Your task to perform on an android device: Open internet settings Image 0: 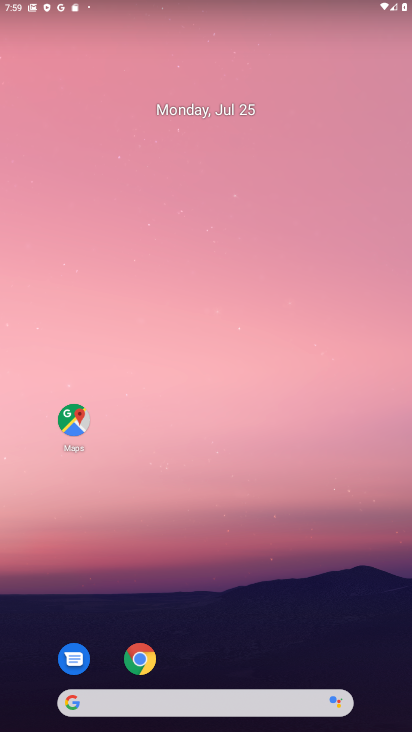
Step 0: drag from (188, 677) to (150, 129)
Your task to perform on an android device: Open internet settings Image 1: 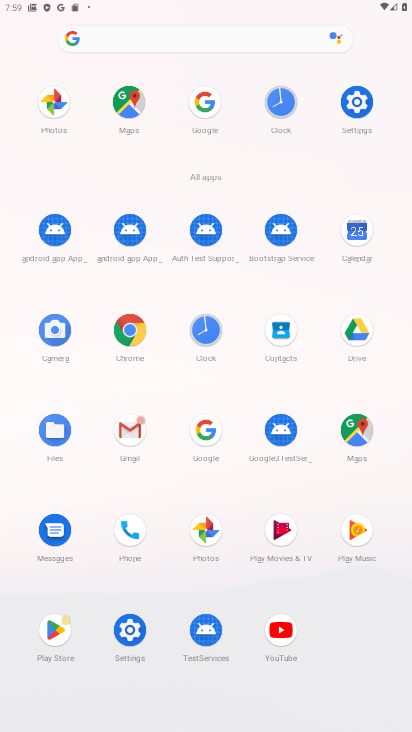
Step 1: click (136, 628)
Your task to perform on an android device: Open internet settings Image 2: 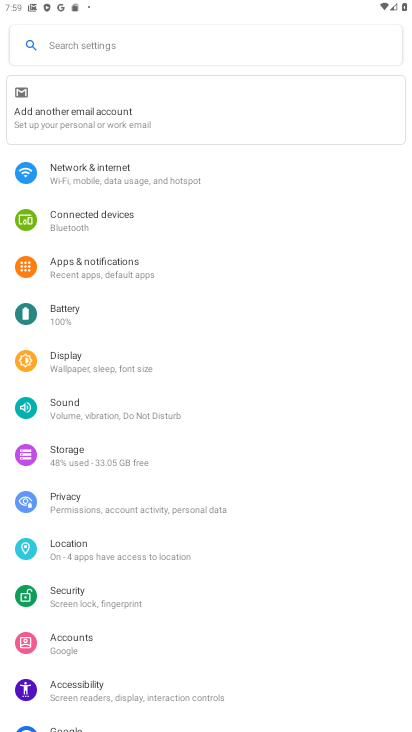
Step 2: click (99, 165)
Your task to perform on an android device: Open internet settings Image 3: 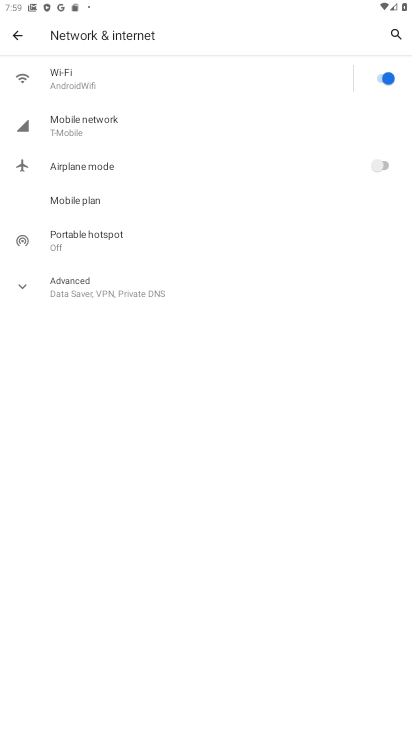
Step 3: click (68, 117)
Your task to perform on an android device: Open internet settings Image 4: 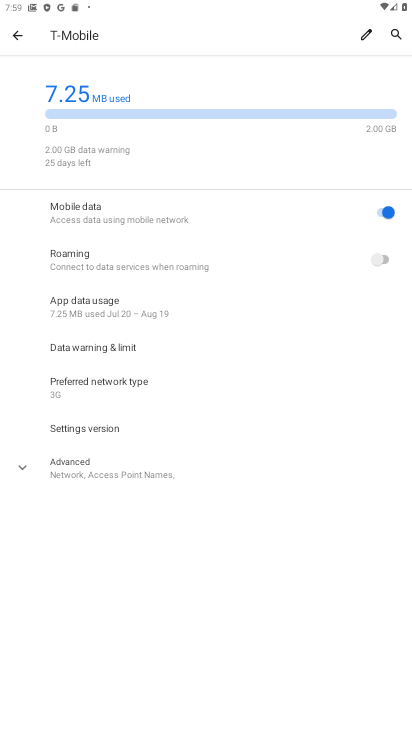
Step 4: task complete